Your task to perform on an android device: toggle javascript in the chrome app Image 0: 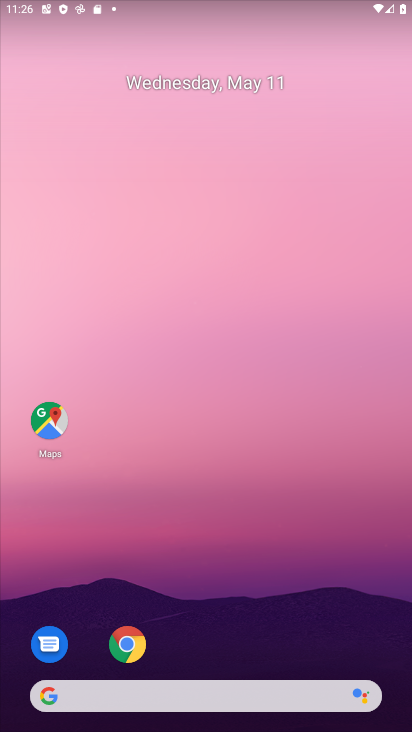
Step 0: click (128, 644)
Your task to perform on an android device: toggle javascript in the chrome app Image 1: 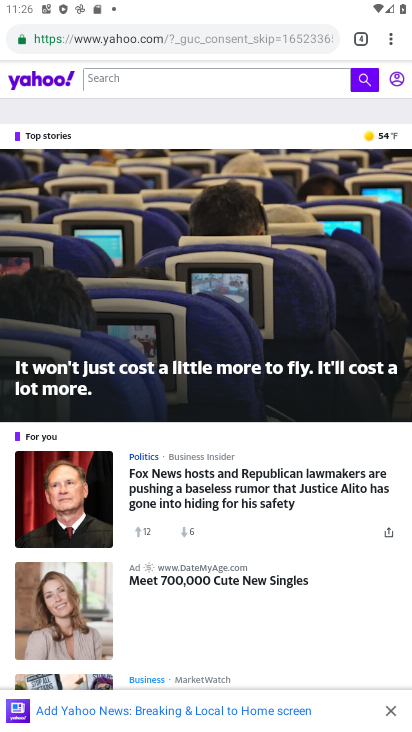
Step 1: click (387, 709)
Your task to perform on an android device: toggle javascript in the chrome app Image 2: 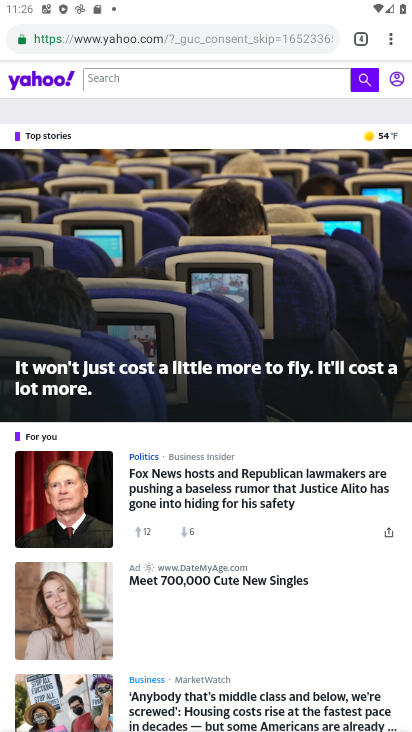
Step 2: click (395, 36)
Your task to perform on an android device: toggle javascript in the chrome app Image 3: 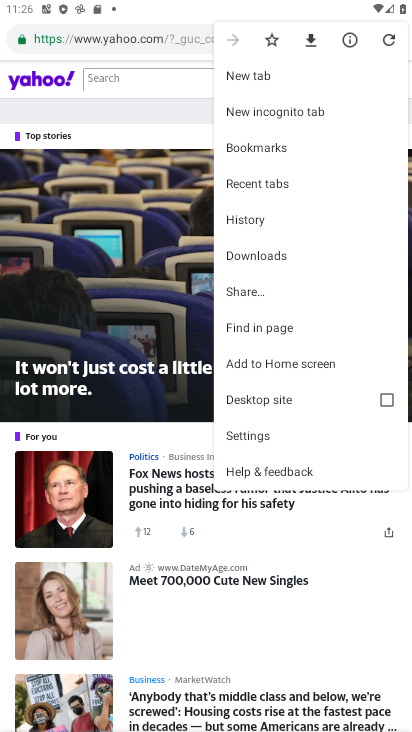
Step 3: click (289, 437)
Your task to perform on an android device: toggle javascript in the chrome app Image 4: 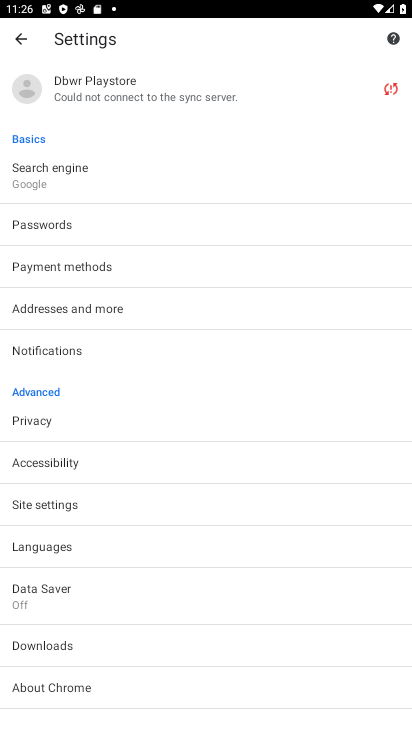
Step 4: click (202, 506)
Your task to perform on an android device: toggle javascript in the chrome app Image 5: 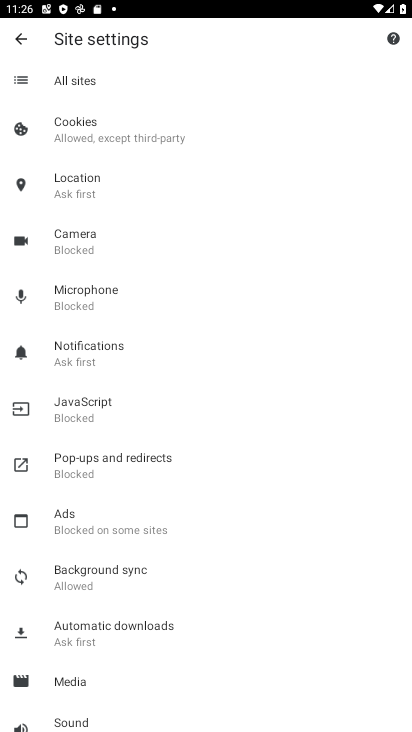
Step 5: click (119, 407)
Your task to perform on an android device: toggle javascript in the chrome app Image 6: 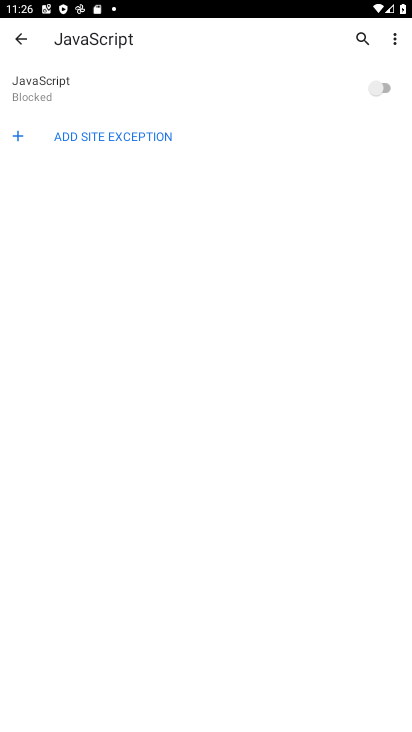
Step 6: click (364, 93)
Your task to perform on an android device: toggle javascript in the chrome app Image 7: 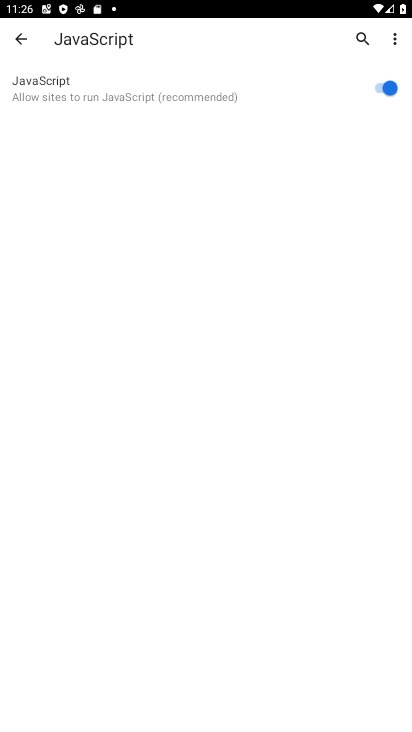
Step 7: task complete